Your task to perform on an android device: check out phone information Image 0: 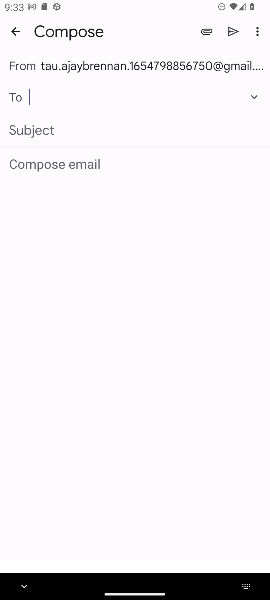
Step 0: press home button
Your task to perform on an android device: check out phone information Image 1: 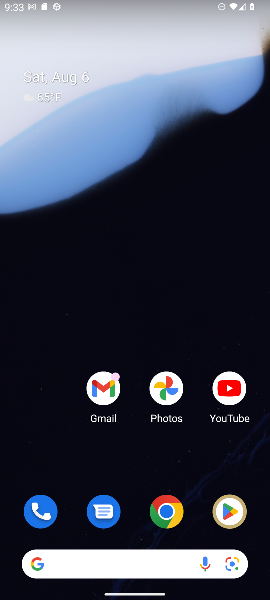
Step 1: drag from (183, 441) to (171, 33)
Your task to perform on an android device: check out phone information Image 2: 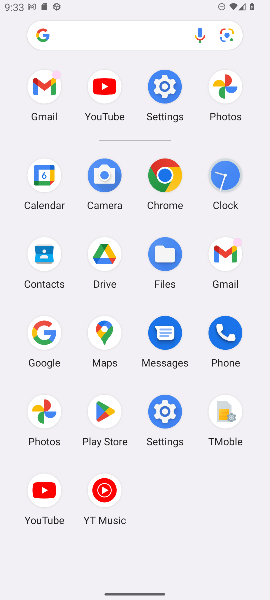
Step 2: click (223, 340)
Your task to perform on an android device: check out phone information Image 3: 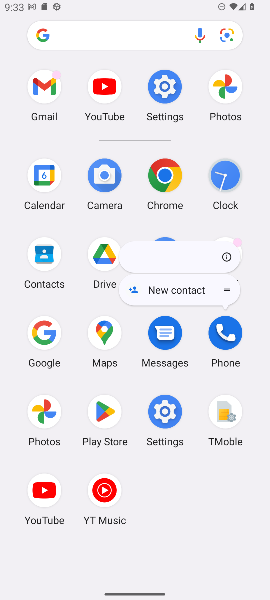
Step 3: click (224, 255)
Your task to perform on an android device: check out phone information Image 4: 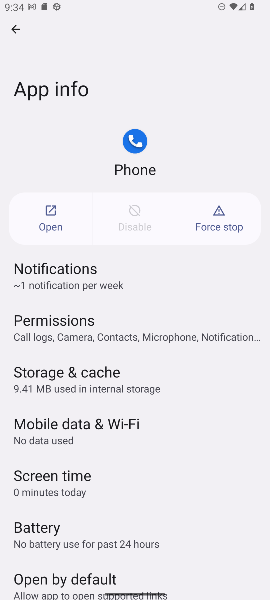
Step 4: task complete